Your task to perform on an android device: show emergency info Image 0: 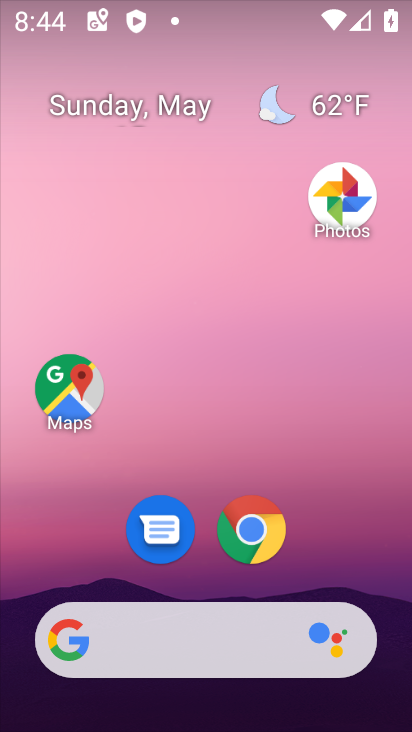
Step 0: drag from (374, 562) to (302, 97)
Your task to perform on an android device: show emergency info Image 1: 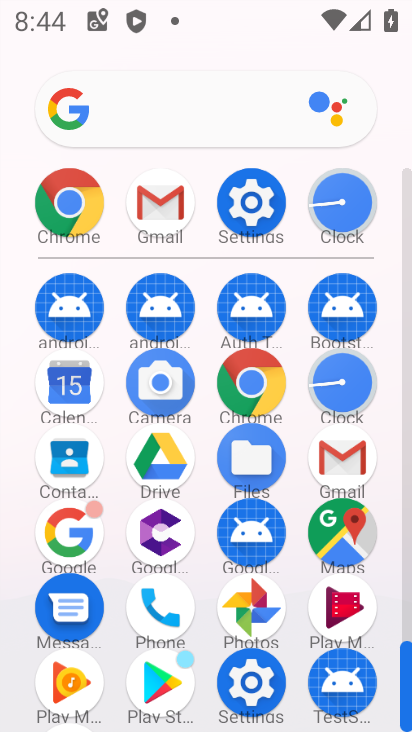
Step 1: click (281, 207)
Your task to perform on an android device: show emergency info Image 2: 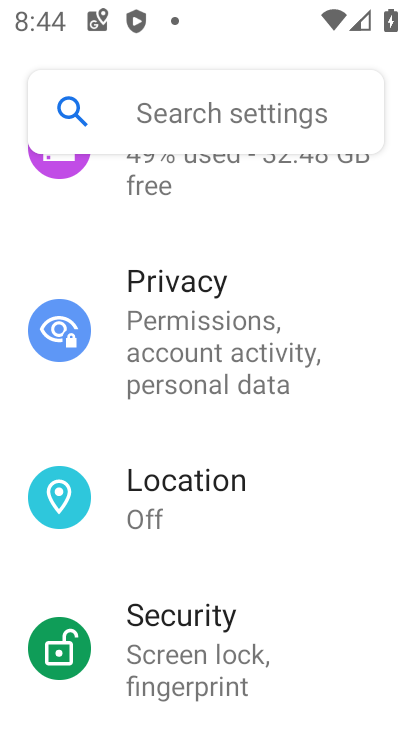
Step 2: drag from (315, 646) to (326, 310)
Your task to perform on an android device: show emergency info Image 3: 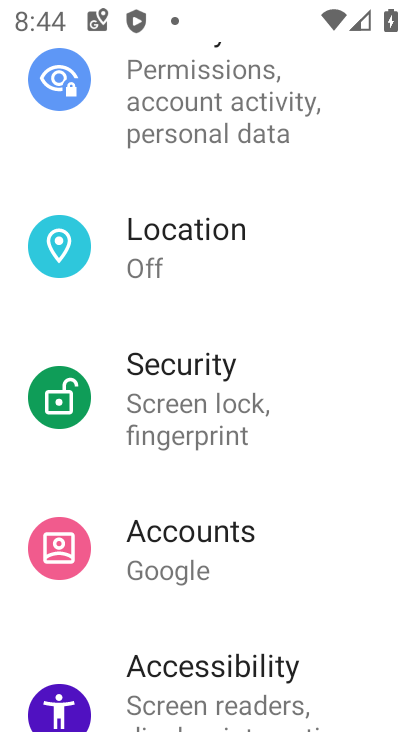
Step 3: drag from (323, 638) to (333, 347)
Your task to perform on an android device: show emergency info Image 4: 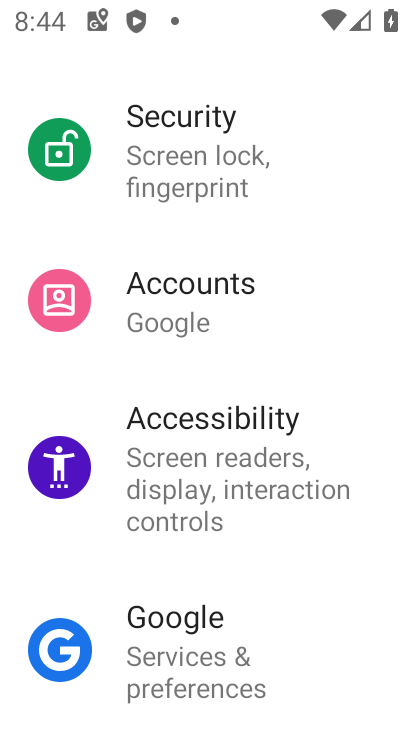
Step 4: drag from (309, 647) to (331, 259)
Your task to perform on an android device: show emergency info Image 5: 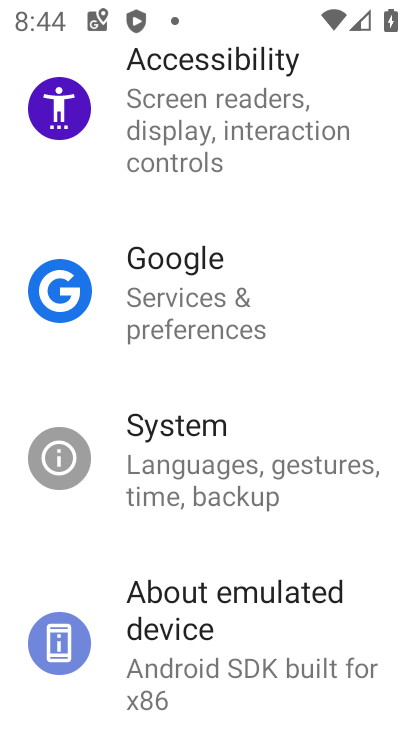
Step 5: drag from (286, 593) to (290, 272)
Your task to perform on an android device: show emergency info Image 6: 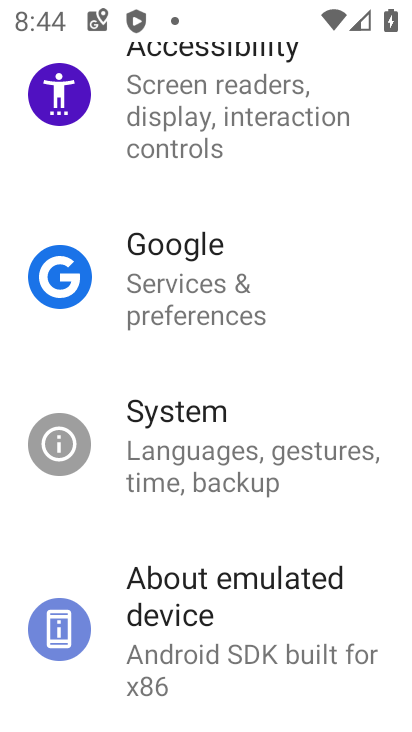
Step 6: click (177, 639)
Your task to perform on an android device: show emergency info Image 7: 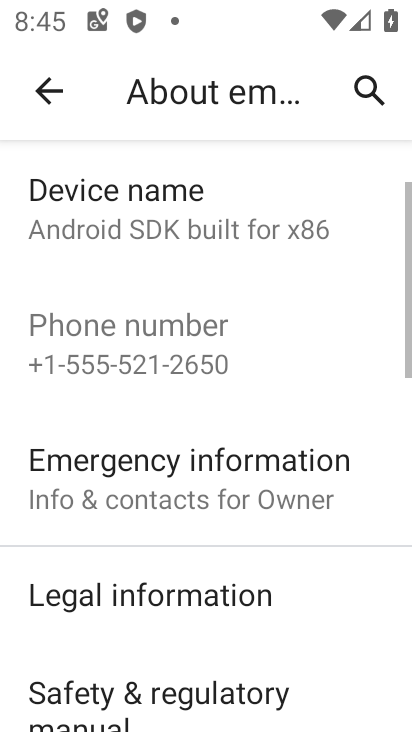
Step 7: drag from (327, 653) to (364, 311)
Your task to perform on an android device: show emergency info Image 8: 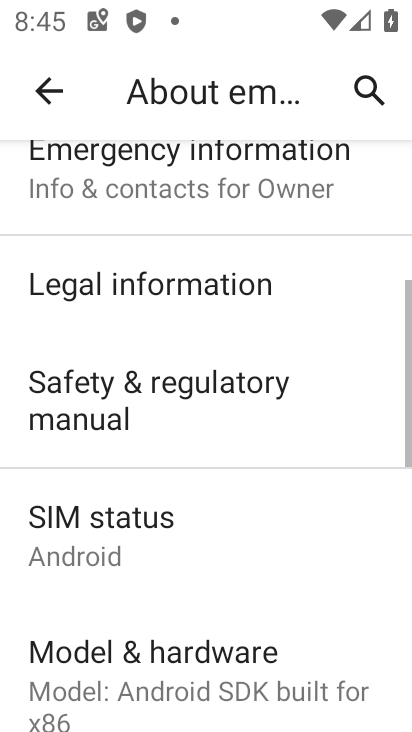
Step 8: drag from (344, 588) to (345, 316)
Your task to perform on an android device: show emergency info Image 9: 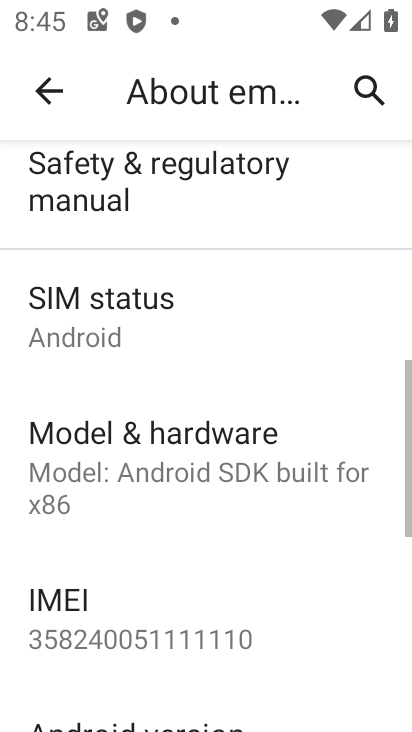
Step 9: drag from (334, 635) to (349, 365)
Your task to perform on an android device: show emergency info Image 10: 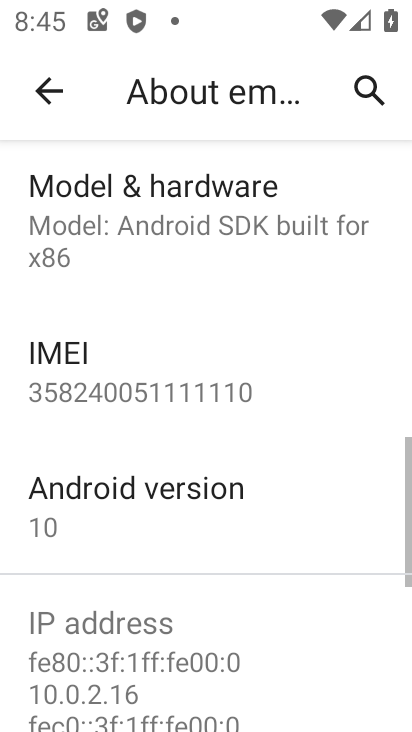
Step 10: drag from (337, 203) to (309, 666)
Your task to perform on an android device: show emergency info Image 11: 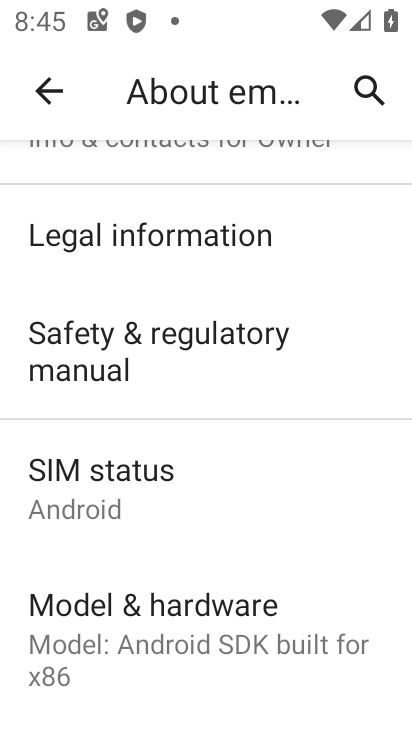
Step 11: drag from (341, 257) to (336, 648)
Your task to perform on an android device: show emergency info Image 12: 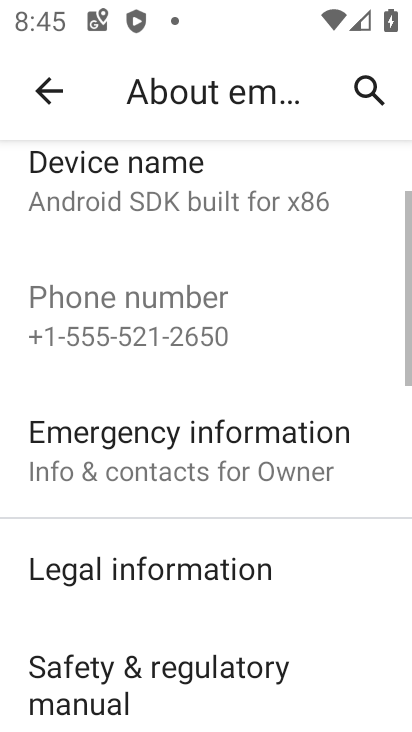
Step 12: click (267, 447)
Your task to perform on an android device: show emergency info Image 13: 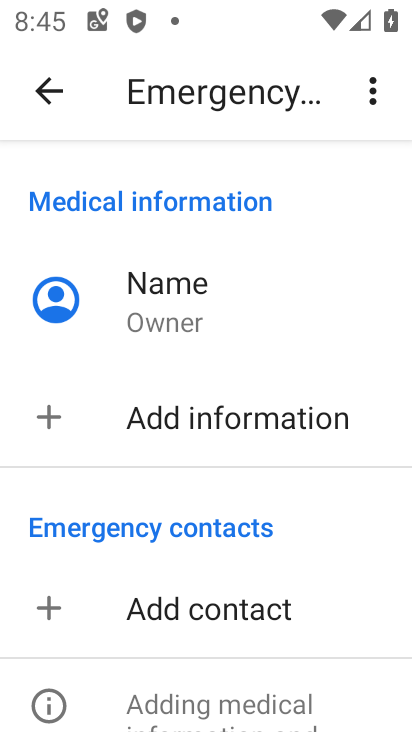
Step 13: task complete